Your task to perform on an android device: show emergency info Image 0: 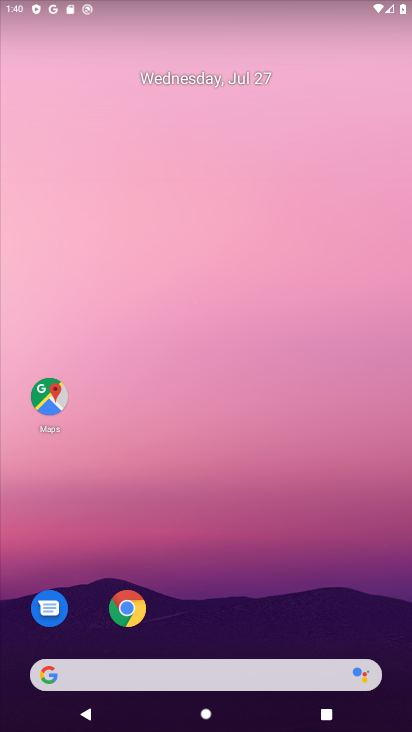
Step 0: drag from (48, 703) to (273, 317)
Your task to perform on an android device: show emergency info Image 1: 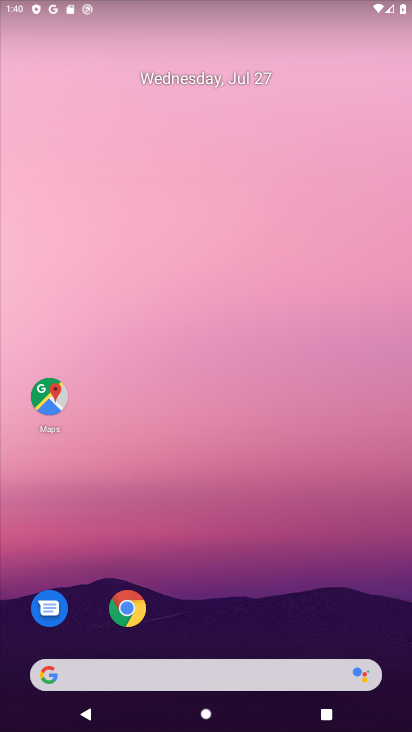
Step 1: drag from (33, 684) to (226, 159)
Your task to perform on an android device: show emergency info Image 2: 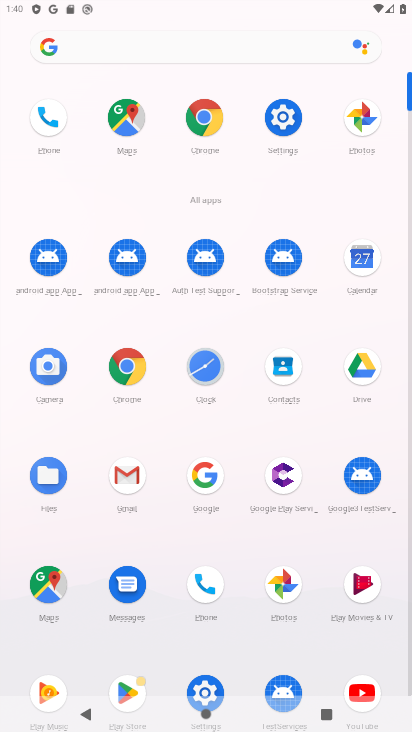
Step 2: click (196, 683)
Your task to perform on an android device: show emergency info Image 3: 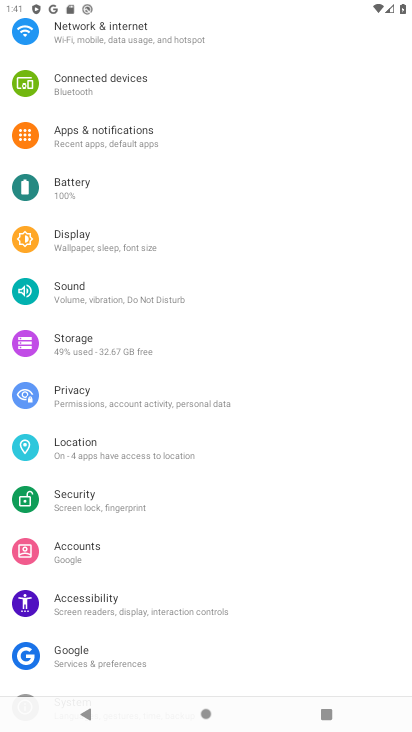
Step 3: click (96, 137)
Your task to perform on an android device: show emergency info Image 4: 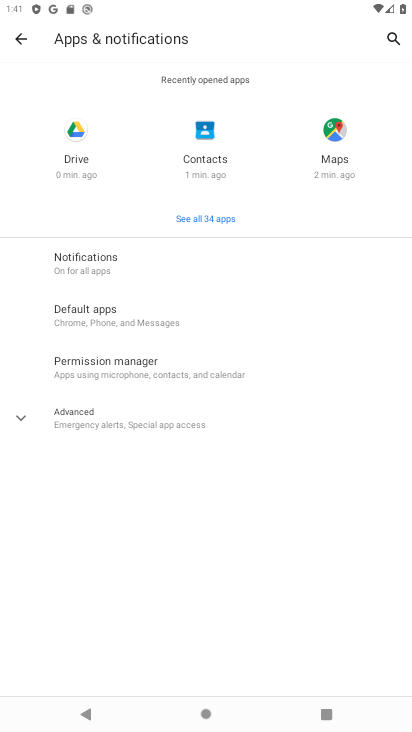
Step 4: click (76, 423)
Your task to perform on an android device: show emergency info Image 5: 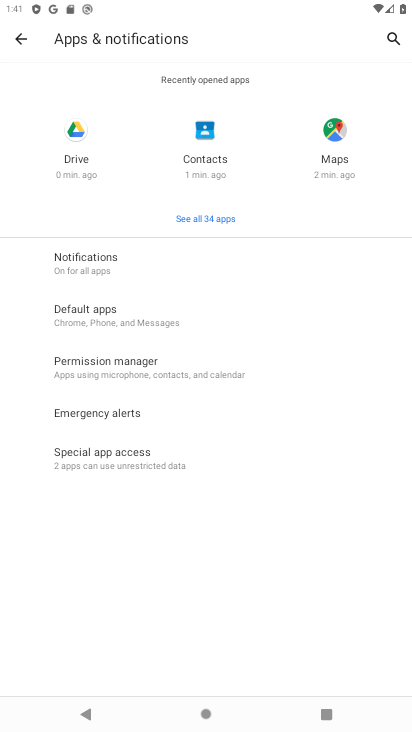
Step 5: click (102, 409)
Your task to perform on an android device: show emergency info Image 6: 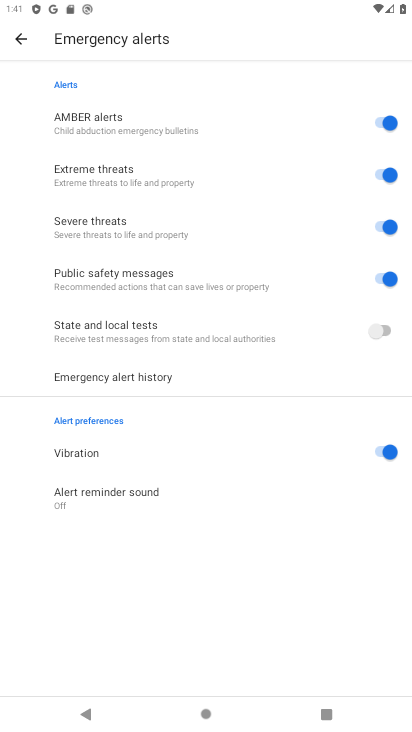
Step 6: task complete